Your task to perform on an android device: turn pop-ups off in chrome Image 0: 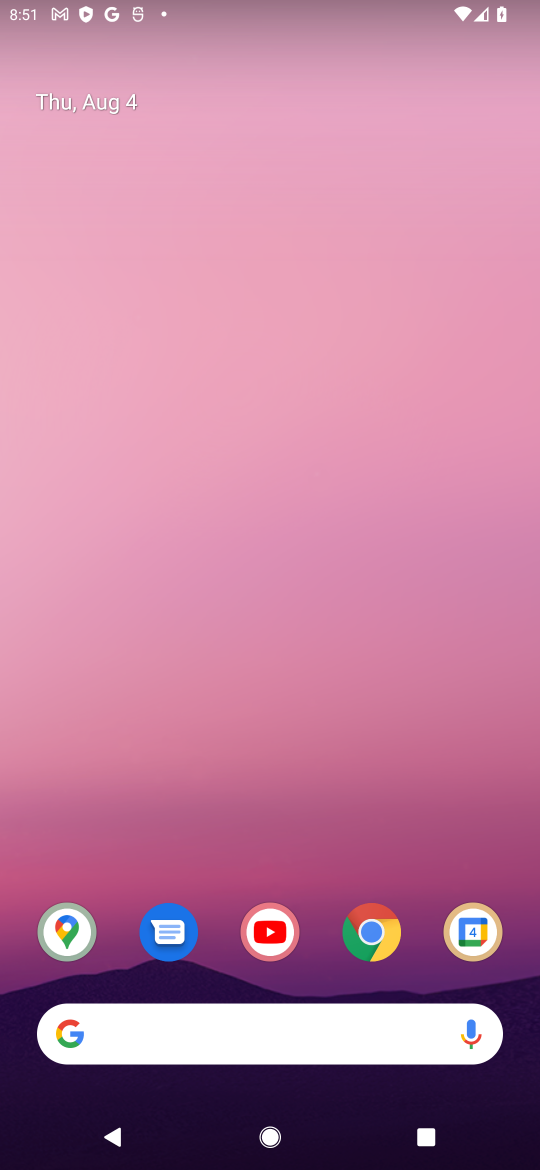
Step 0: click (371, 938)
Your task to perform on an android device: turn pop-ups off in chrome Image 1: 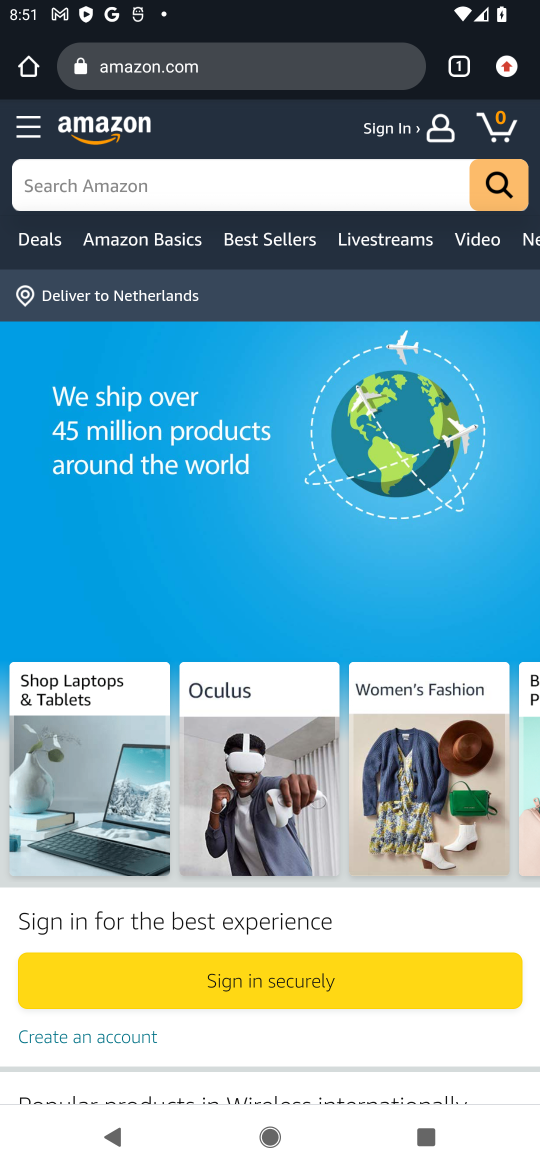
Step 1: click (504, 71)
Your task to perform on an android device: turn pop-ups off in chrome Image 2: 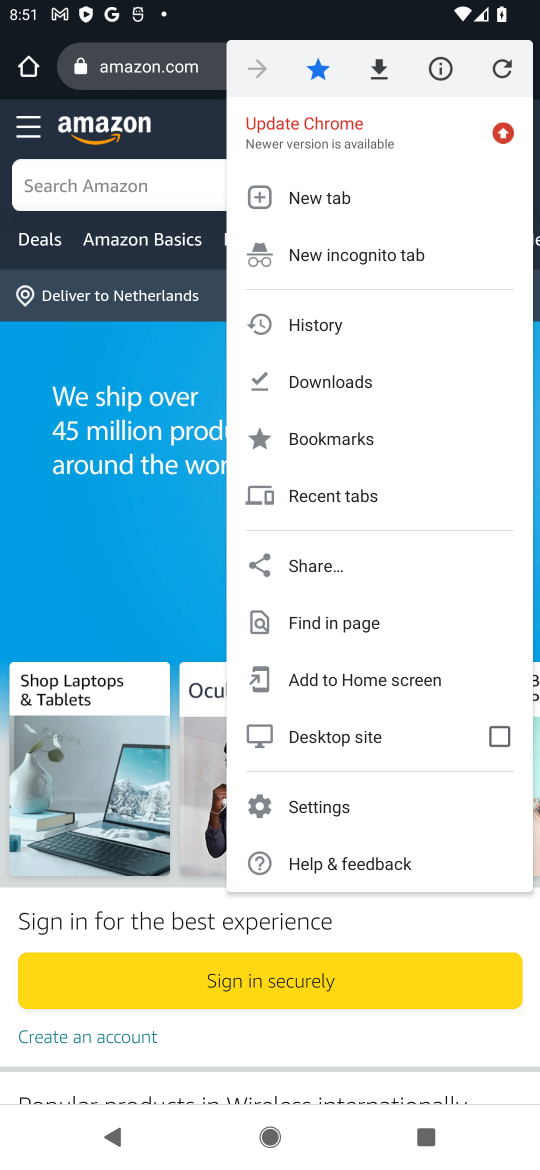
Step 2: click (305, 812)
Your task to perform on an android device: turn pop-ups off in chrome Image 3: 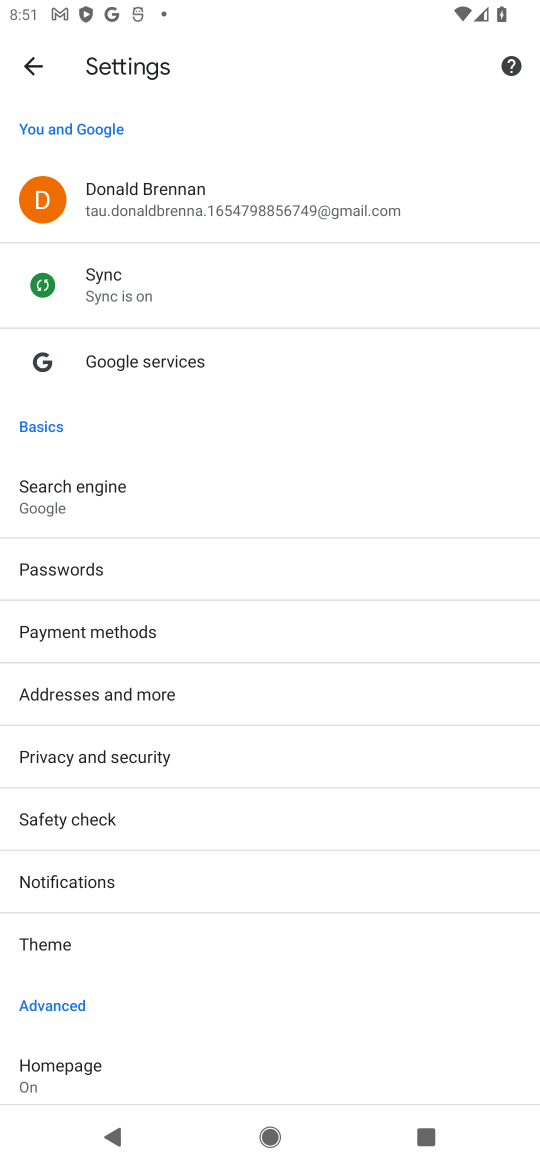
Step 3: drag from (143, 951) to (206, 395)
Your task to perform on an android device: turn pop-ups off in chrome Image 4: 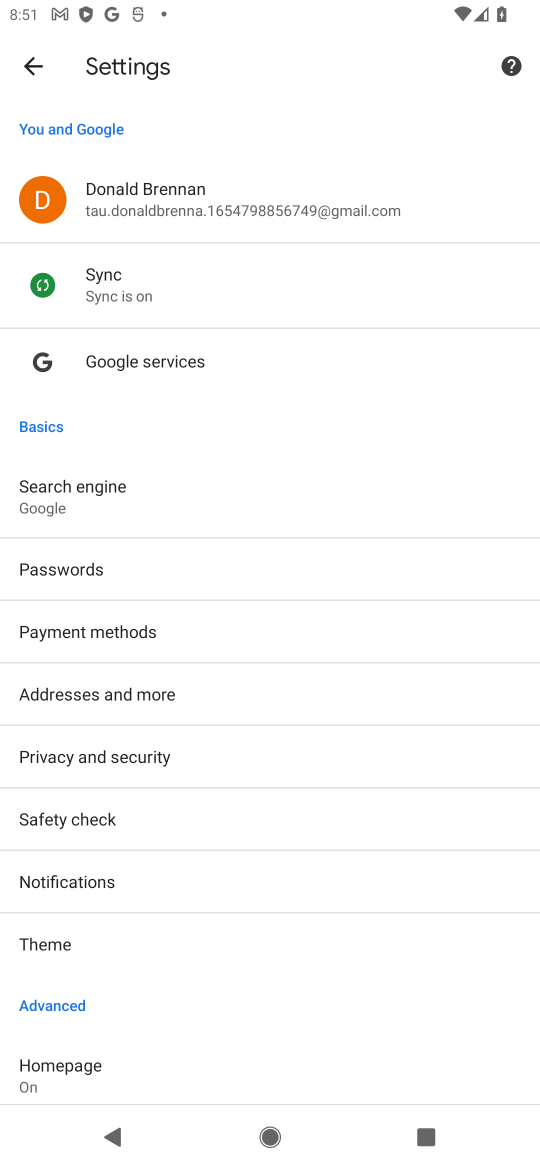
Step 4: drag from (137, 1004) to (143, 513)
Your task to perform on an android device: turn pop-ups off in chrome Image 5: 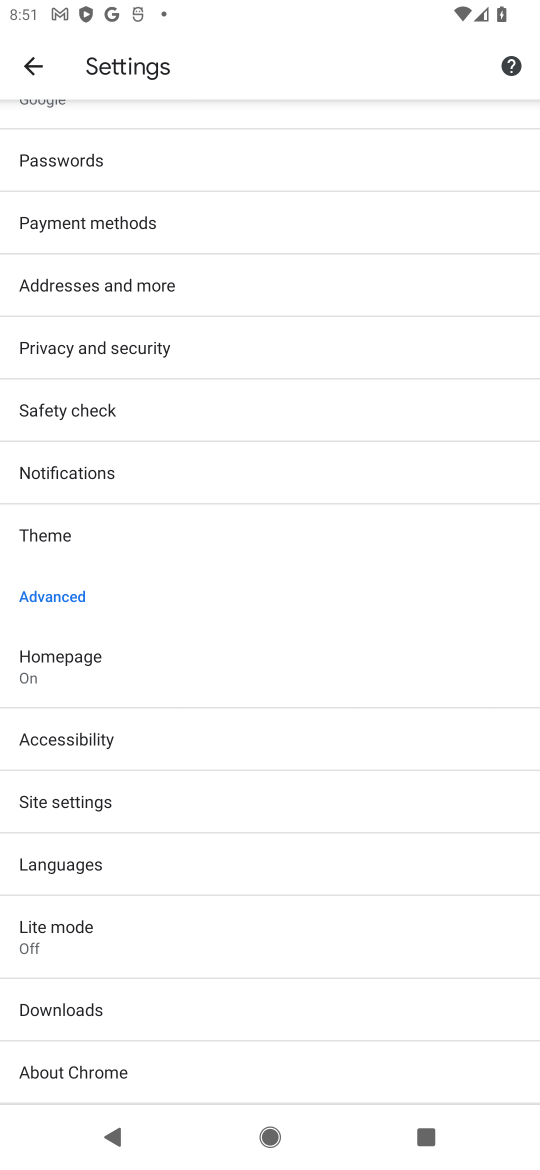
Step 5: click (76, 893)
Your task to perform on an android device: turn pop-ups off in chrome Image 6: 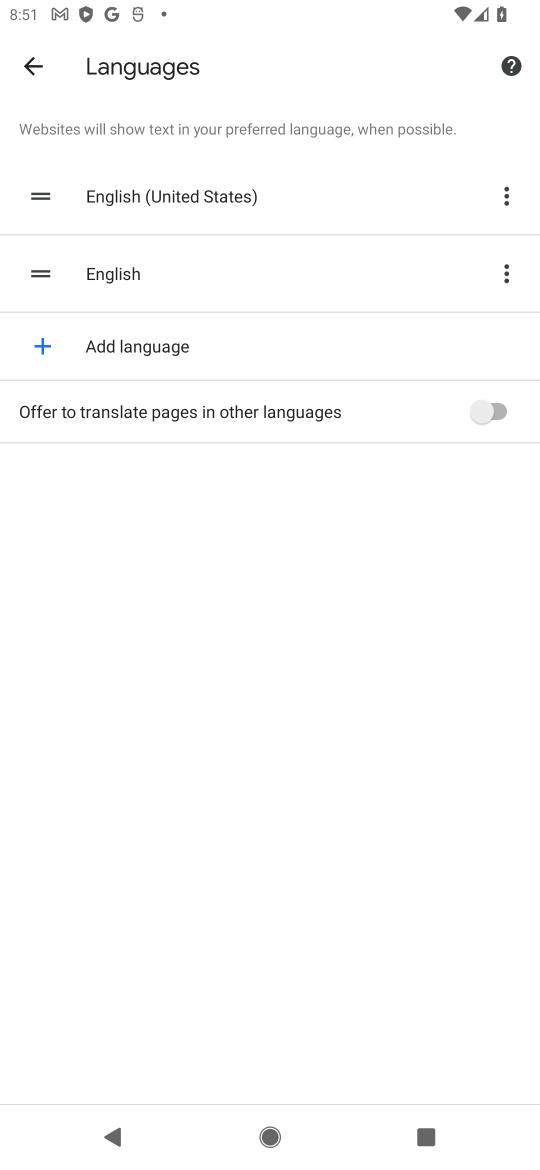
Step 6: press back button
Your task to perform on an android device: turn pop-ups off in chrome Image 7: 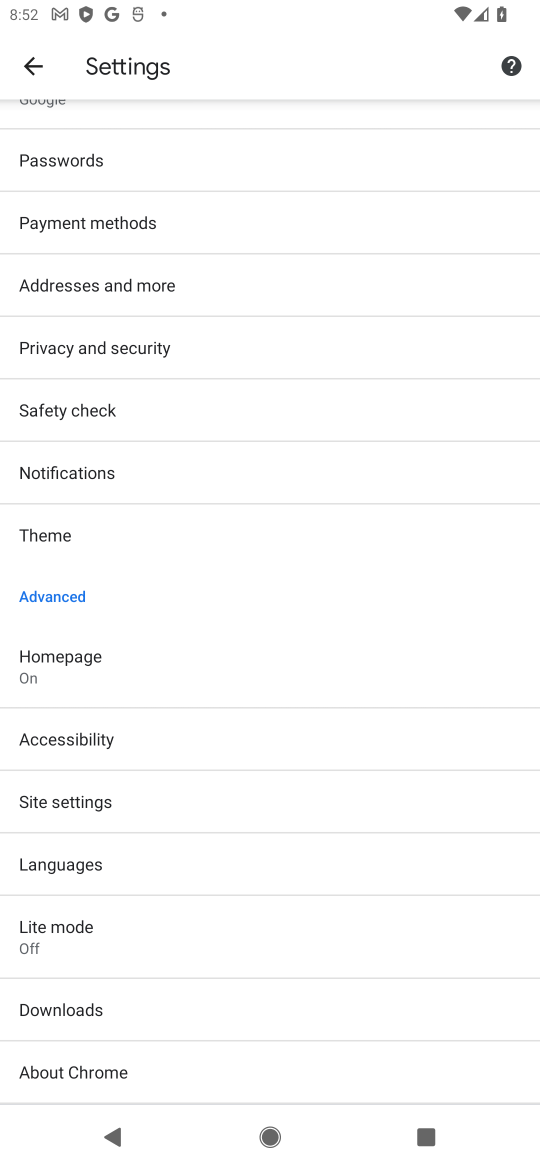
Step 7: click (89, 803)
Your task to perform on an android device: turn pop-ups off in chrome Image 8: 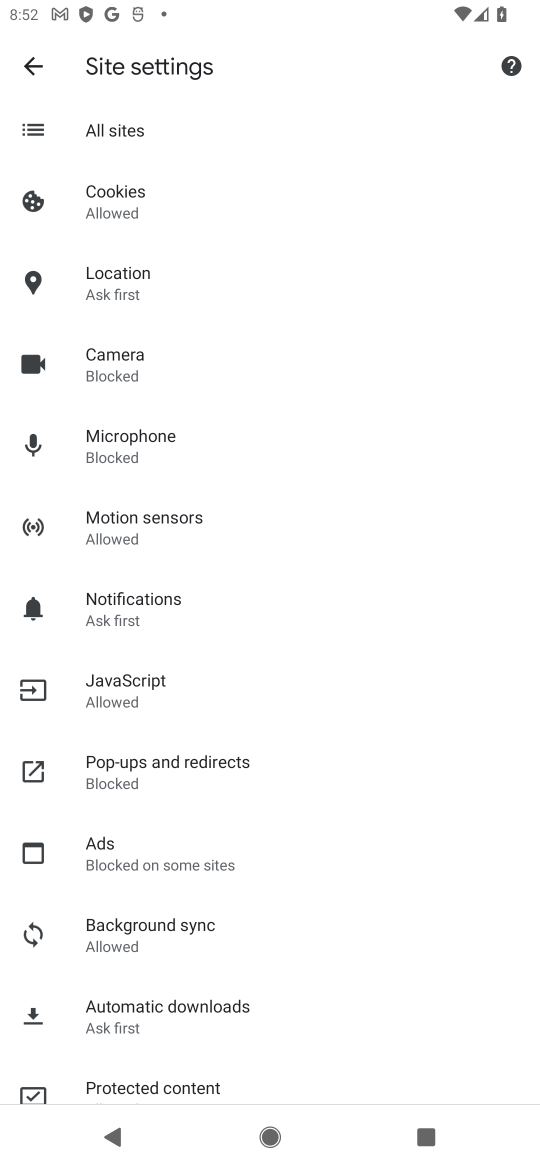
Step 8: click (138, 757)
Your task to perform on an android device: turn pop-ups off in chrome Image 9: 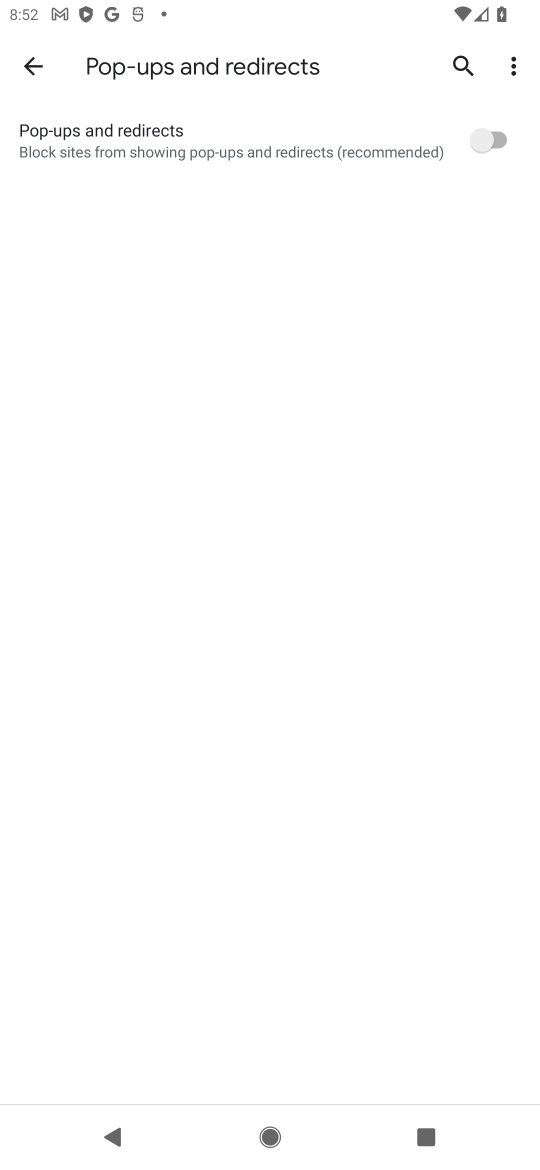
Step 9: task complete